Your task to perform on an android device: What is the capital of Argentina? Image 0: 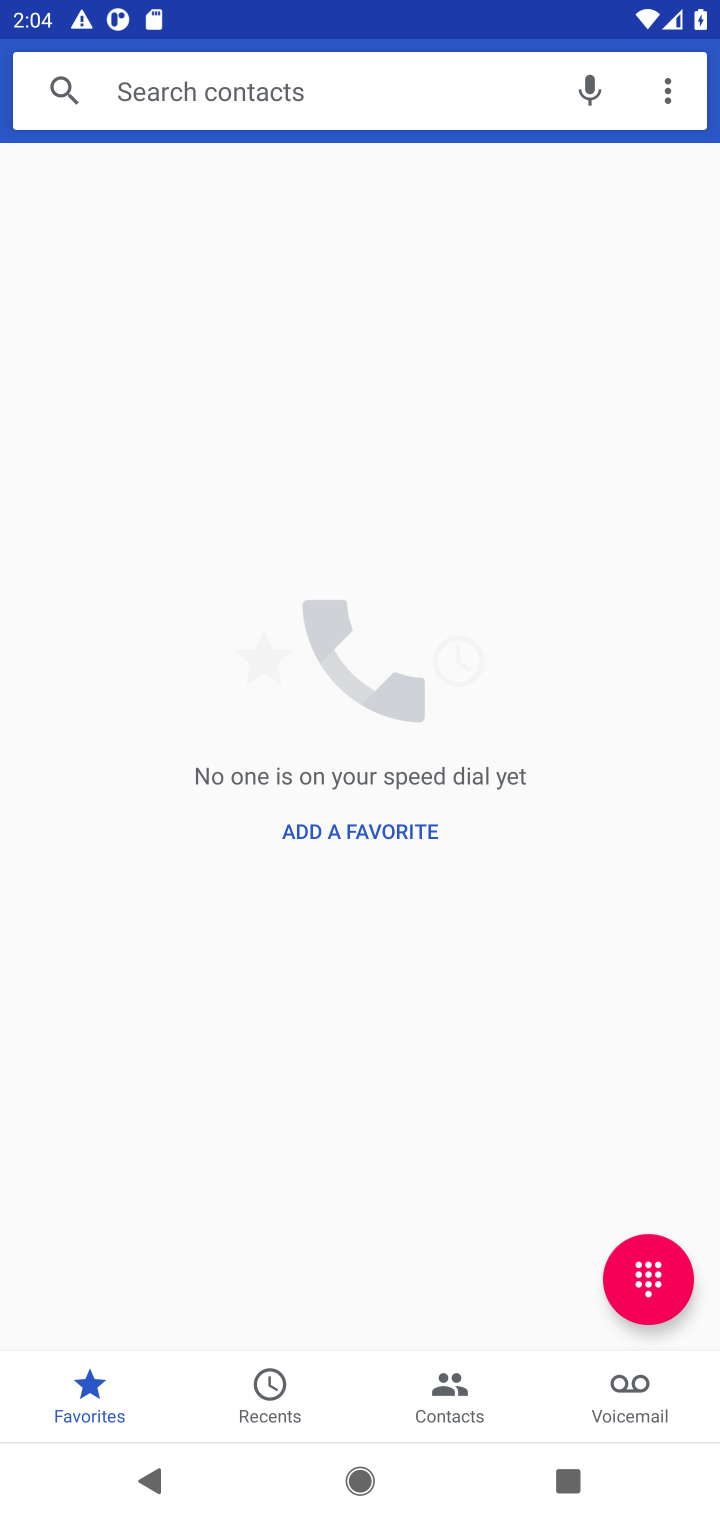
Step 0: press home button
Your task to perform on an android device: What is the capital of Argentina? Image 1: 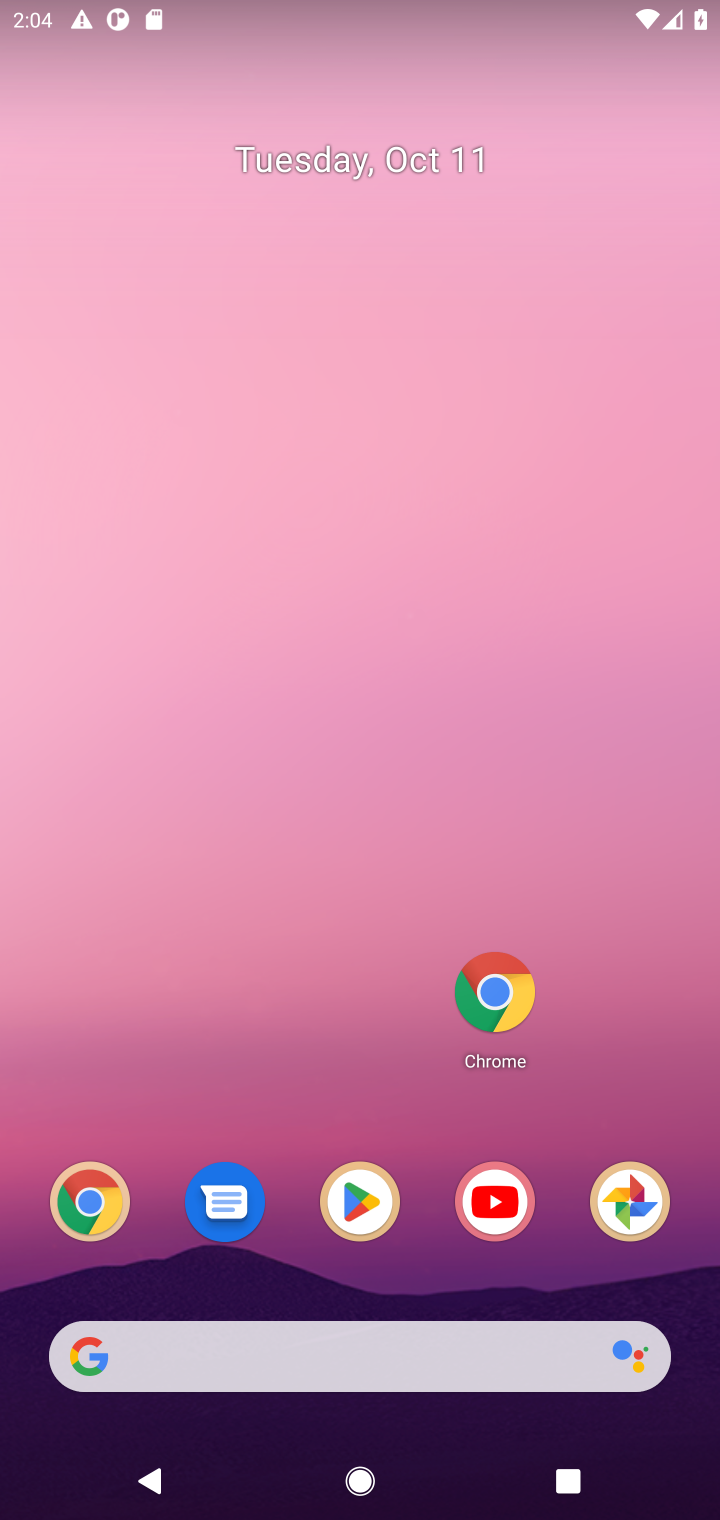
Step 1: click (483, 985)
Your task to perform on an android device: What is the capital of Argentina? Image 2: 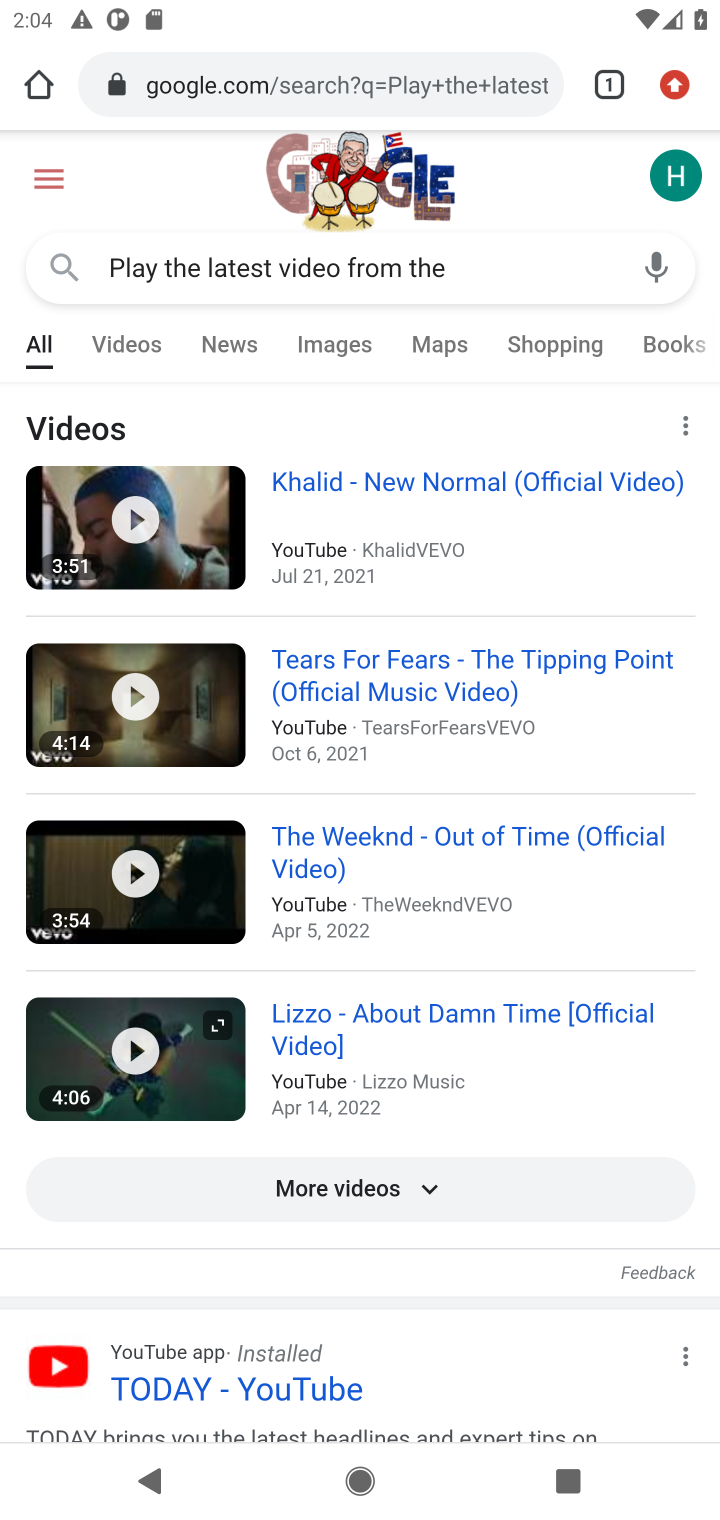
Step 2: click (433, 79)
Your task to perform on an android device: What is the capital of Argentina? Image 3: 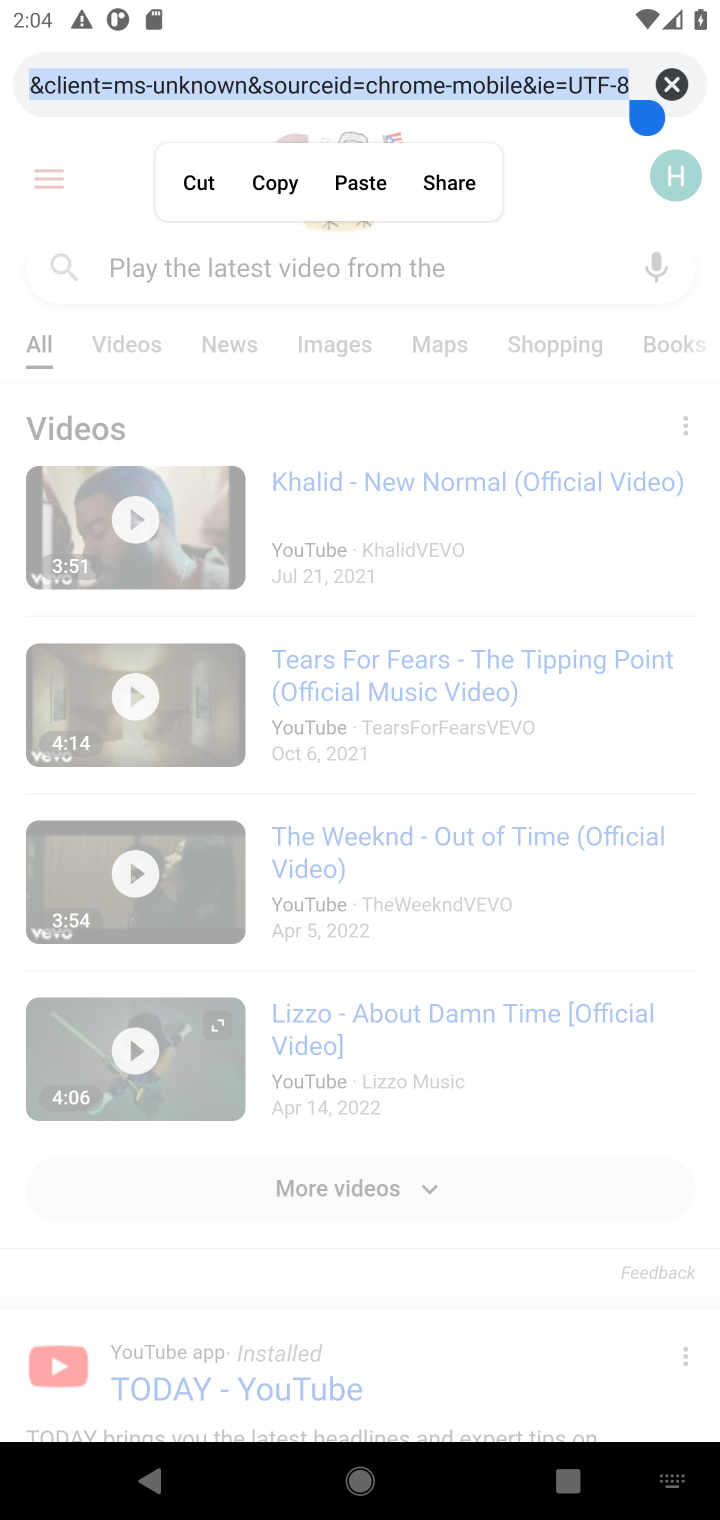
Step 3: click (675, 85)
Your task to perform on an android device: What is the capital of Argentina? Image 4: 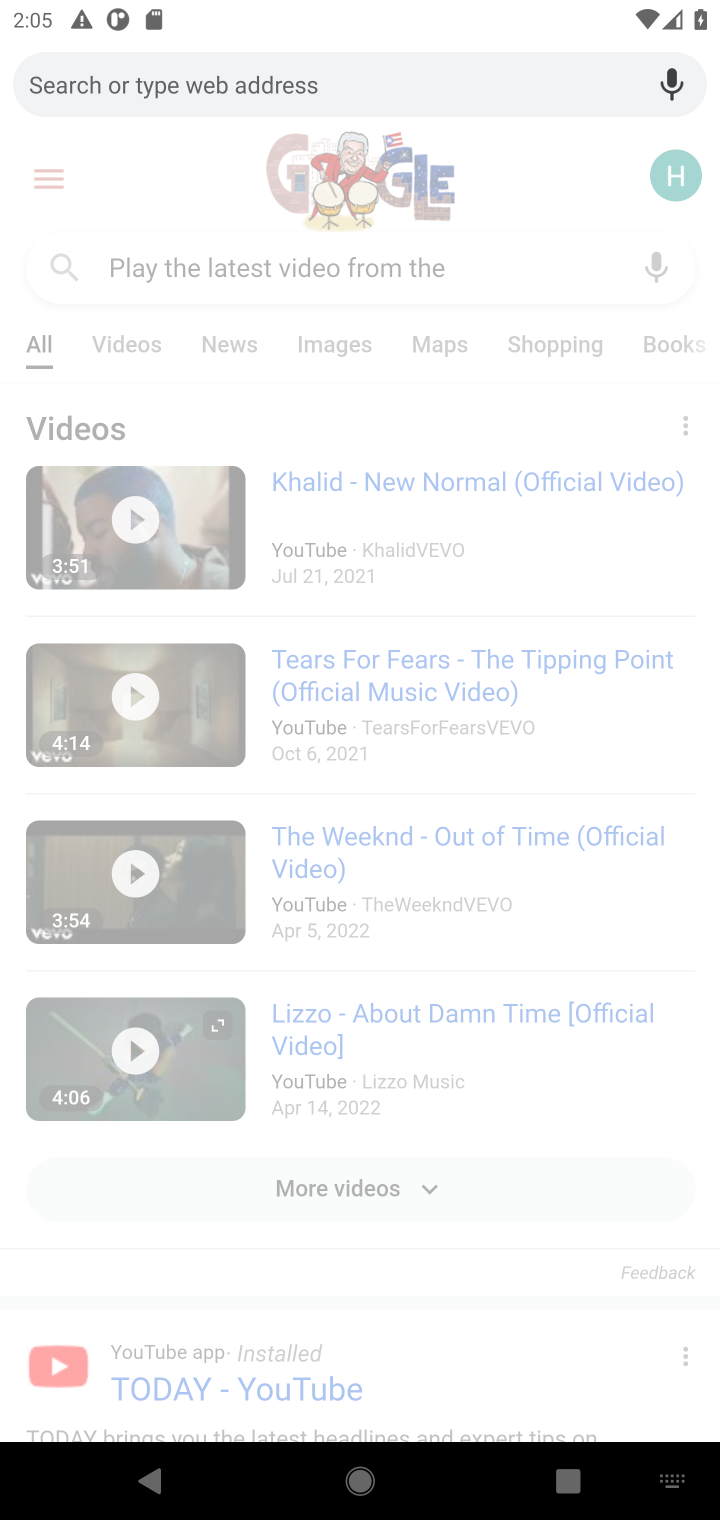
Step 4: type "capital of Argentina"
Your task to perform on an android device: What is the capital of Argentina? Image 5: 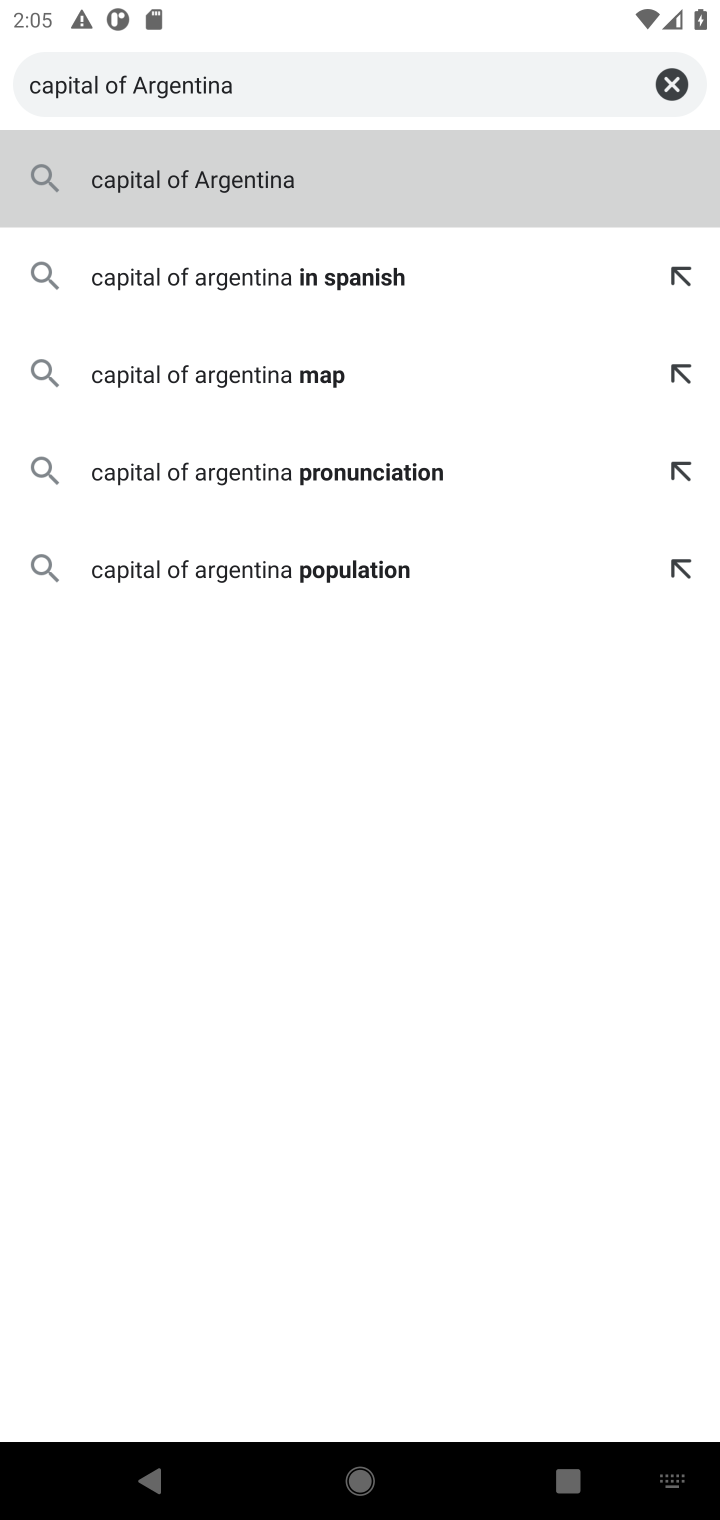
Step 5: press enter
Your task to perform on an android device: What is the capital of Argentina? Image 6: 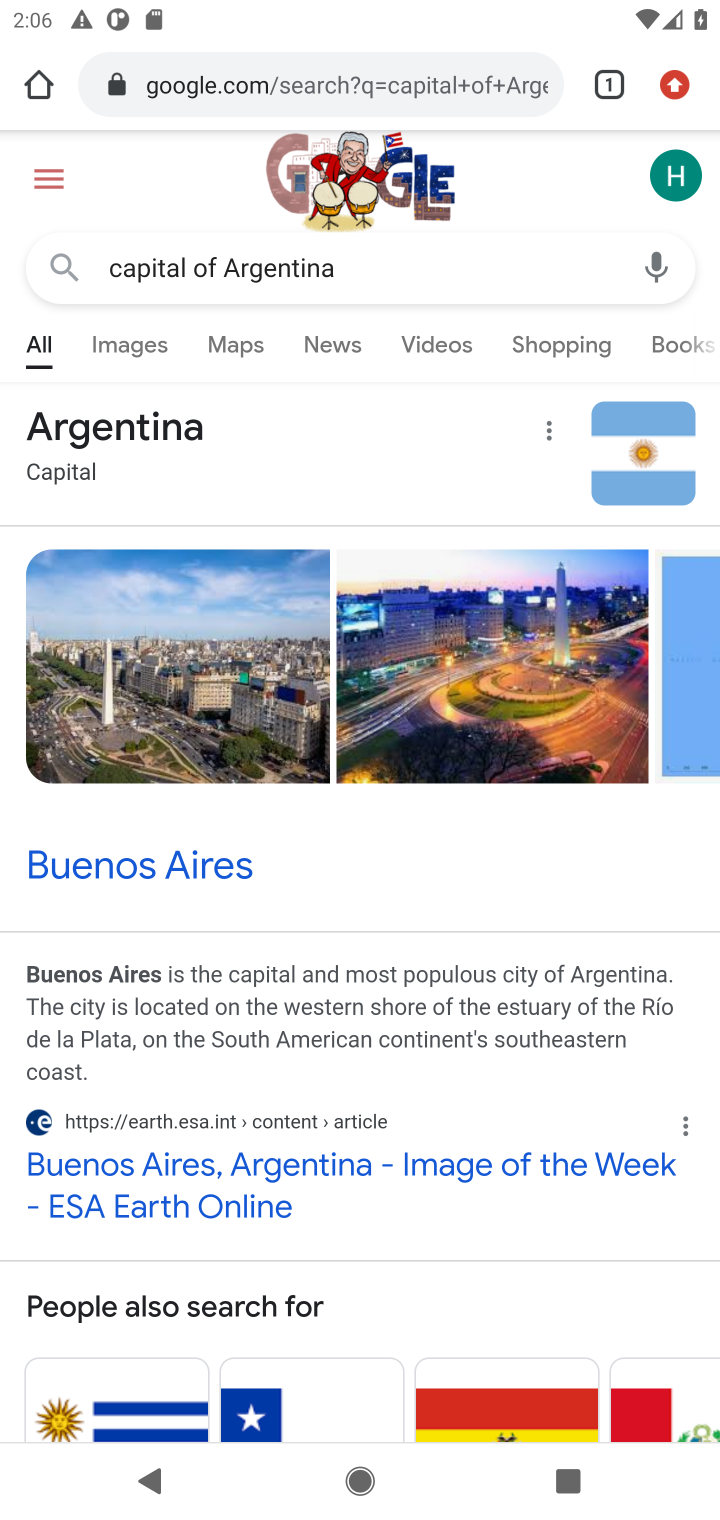
Step 6: task complete